Your task to perform on an android device: Go to Google maps Image 0: 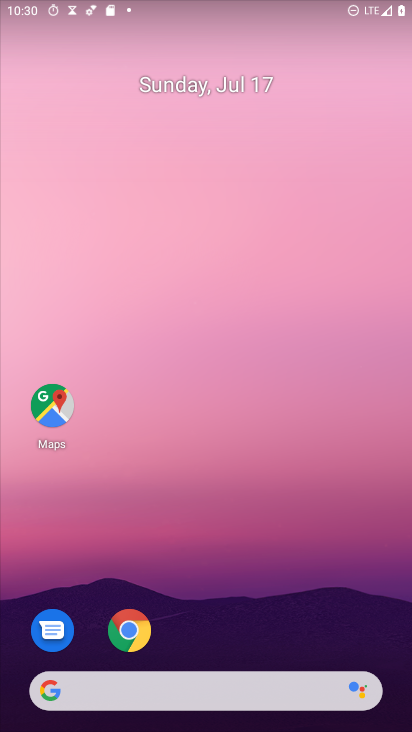
Step 0: drag from (213, 670) to (216, 0)
Your task to perform on an android device: Go to Google maps Image 1: 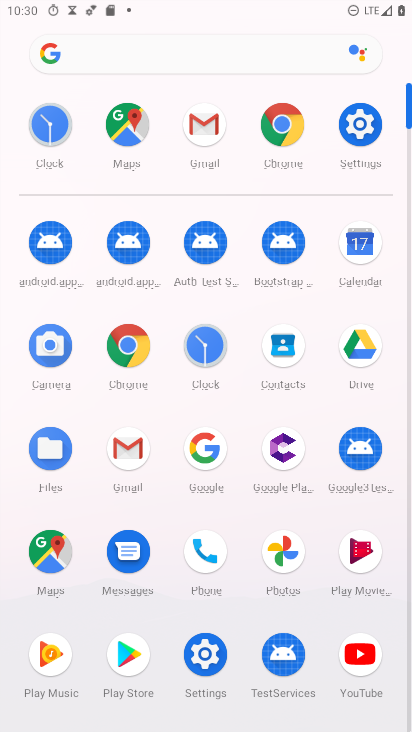
Step 1: click (41, 542)
Your task to perform on an android device: Go to Google maps Image 2: 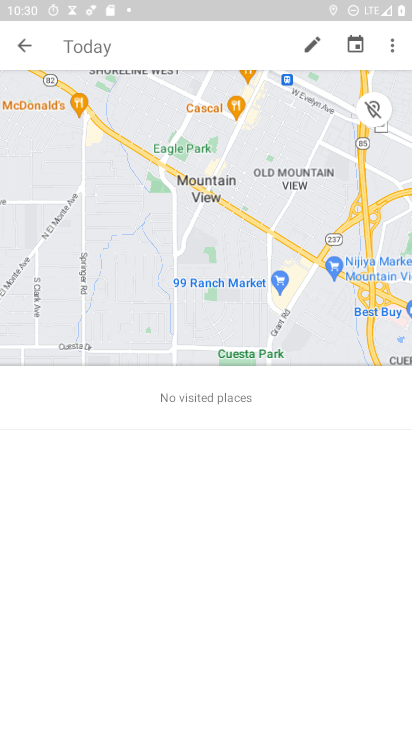
Step 2: task complete